Your task to perform on an android device: Go to Amazon Image 0: 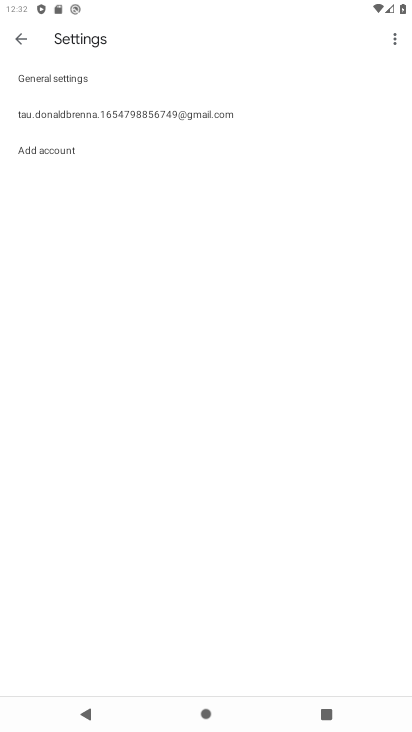
Step 0: press home button
Your task to perform on an android device: Go to Amazon Image 1: 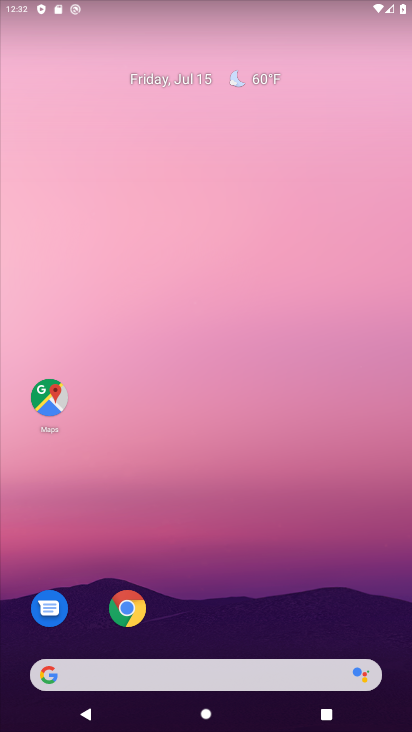
Step 1: drag from (256, 609) to (290, 104)
Your task to perform on an android device: Go to Amazon Image 2: 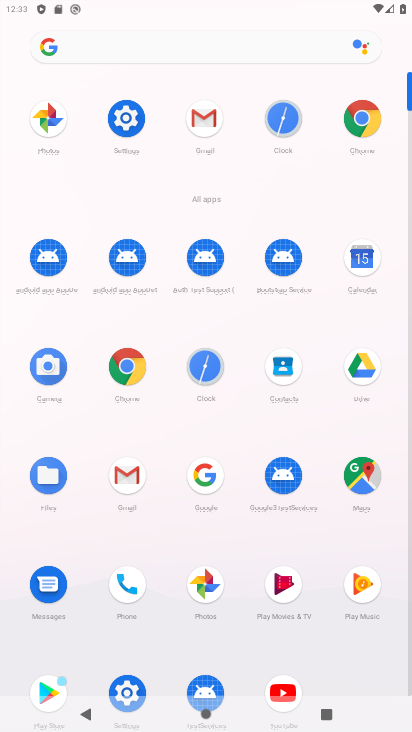
Step 2: click (128, 358)
Your task to perform on an android device: Go to Amazon Image 3: 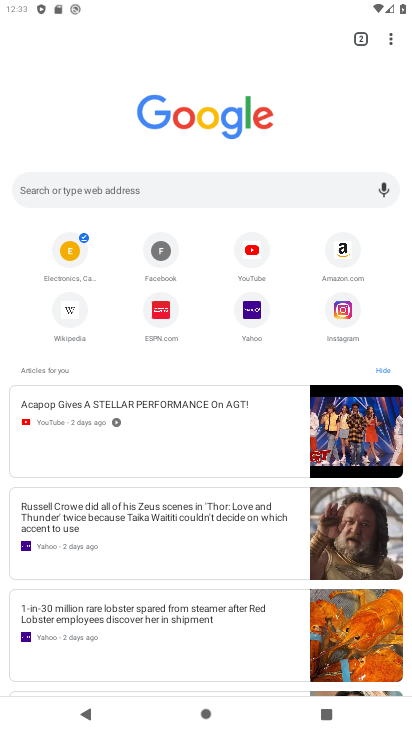
Step 3: click (346, 243)
Your task to perform on an android device: Go to Amazon Image 4: 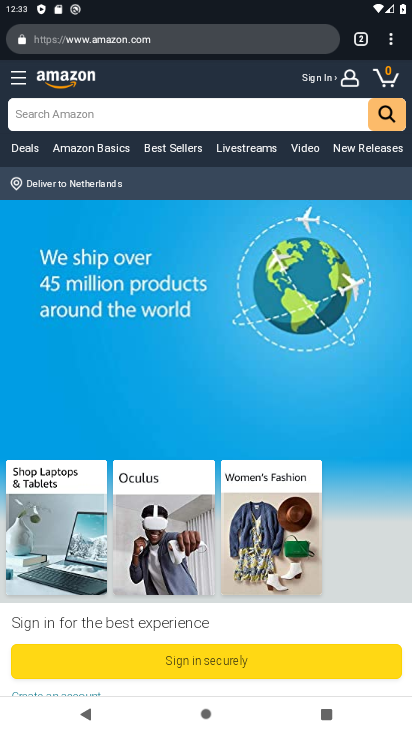
Step 4: task complete